Your task to perform on an android device: search for starred emails in the gmail app Image 0: 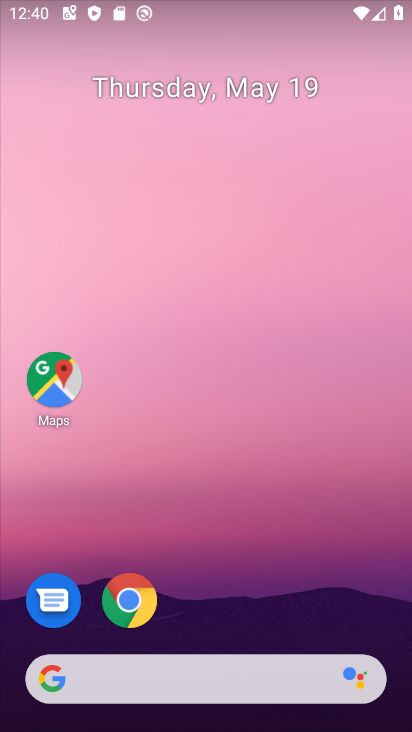
Step 0: drag from (299, 590) to (241, 191)
Your task to perform on an android device: search for starred emails in the gmail app Image 1: 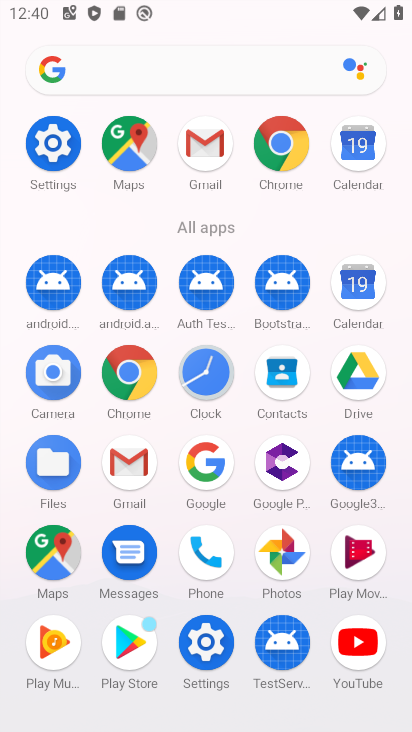
Step 1: click (209, 143)
Your task to perform on an android device: search for starred emails in the gmail app Image 2: 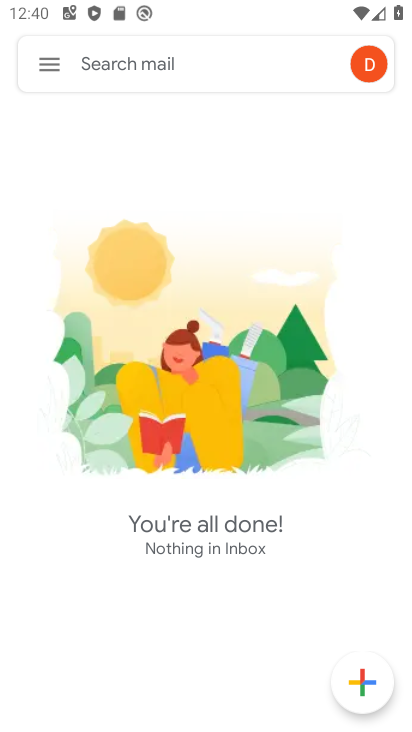
Step 2: click (44, 70)
Your task to perform on an android device: search for starred emails in the gmail app Image 3: 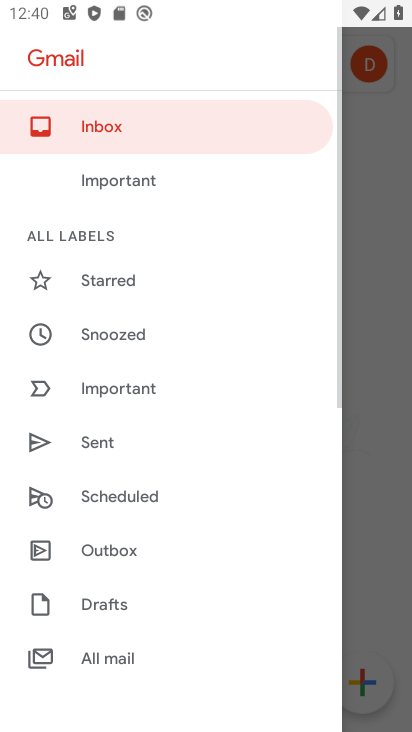
Step 3: click (82, 294)
Your task to perform on an android device: search for starred emails in the gmail app Image 4: 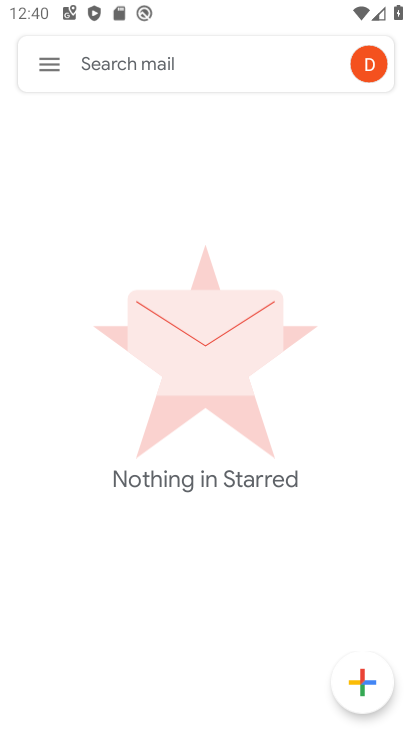
Step 4: task complete